Your task to perform on an android device: Show me recent news Image 0: 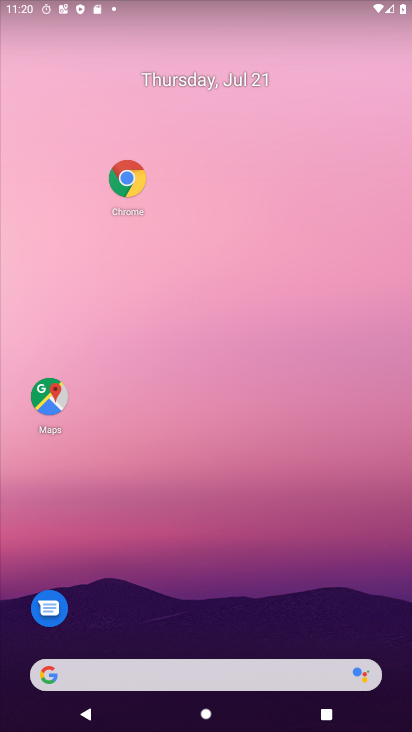
Step 0: click (207, 76)
Your task to perform on an android device: Show me recent news Image 1: 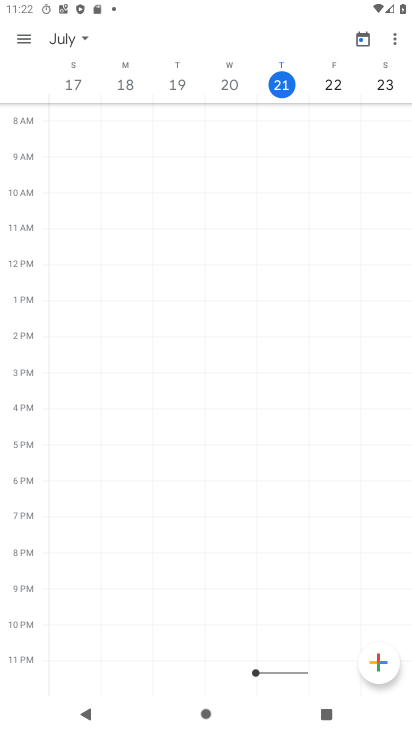
Step 1: press home button
Your task to perform on an android device: Show me recent news Image 2: 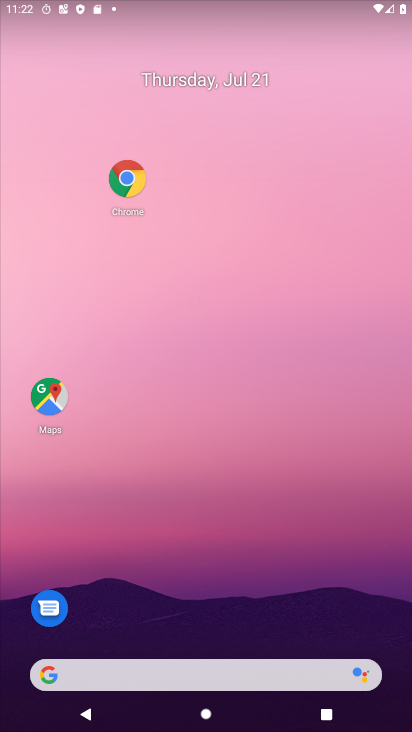
Step 2: click (133, 139)
Your task to perform on an android device: Show me recent news Image 3: 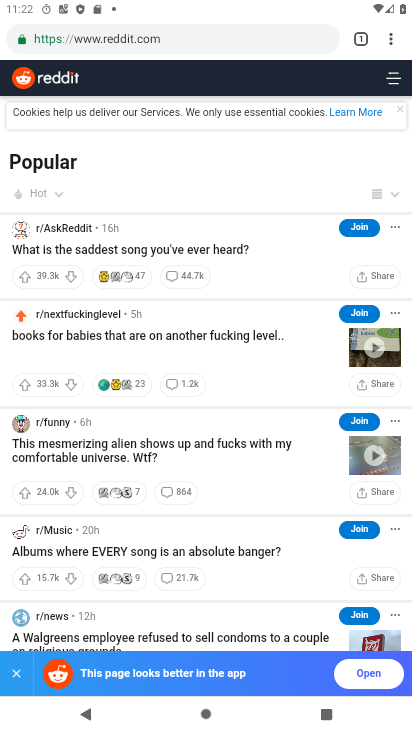
Step 3: drag from (199, 624) to (188, 124)
Your task to perform on an android device: Show me recent news Image 4: 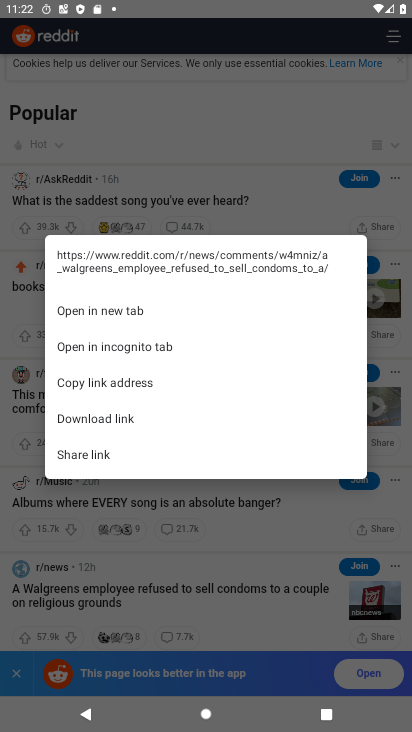
Step 4: press home button
Your task to perform on an android device: Show me recent news Image 5: 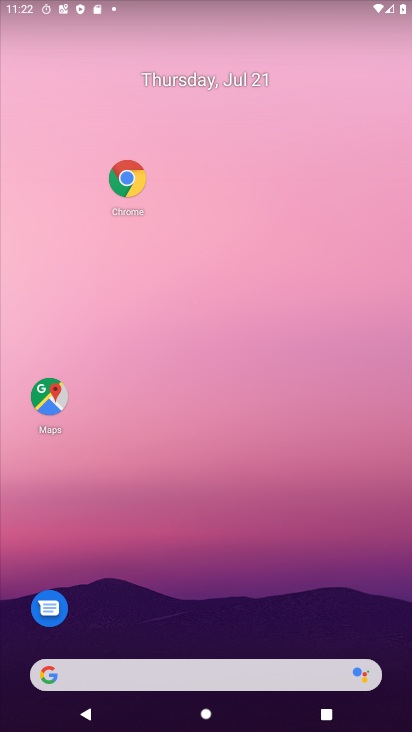
Step 5: drag from (177, 608) to (170, 296)
Your task to perform on an android device: Show me recent news Image 6: 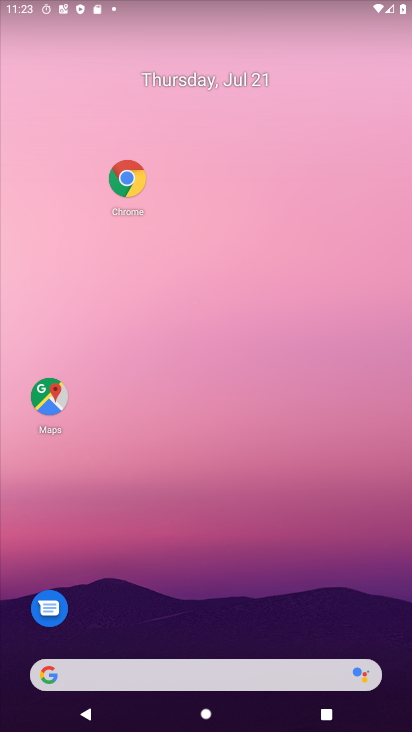
Step 6: drag from (201, 541) to (190, 177)
Your task to perform on an android device: Show me recent news Image 7: 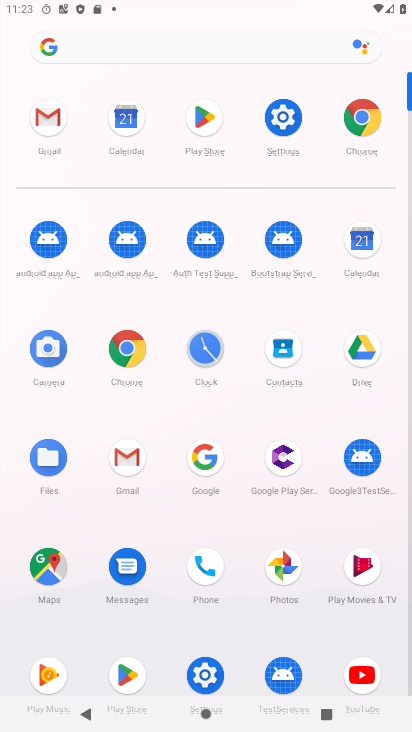
Step 7: click (208, 455)
Your task to perform on an android device: Show me recent news Image 8: 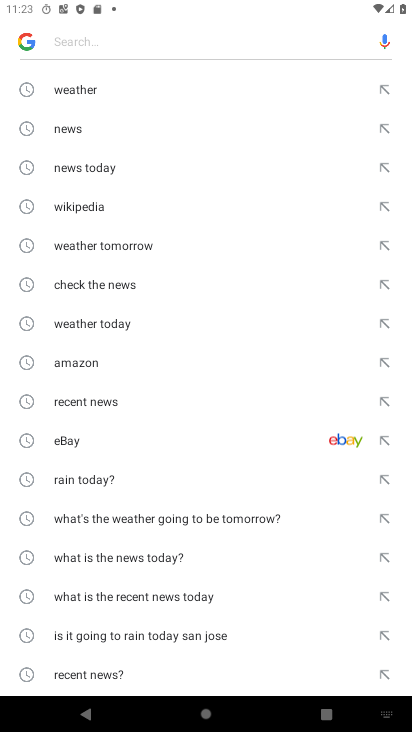
Step 8: click (87, 401)
Your task to perform on an android device: Show me recent news Image 9: 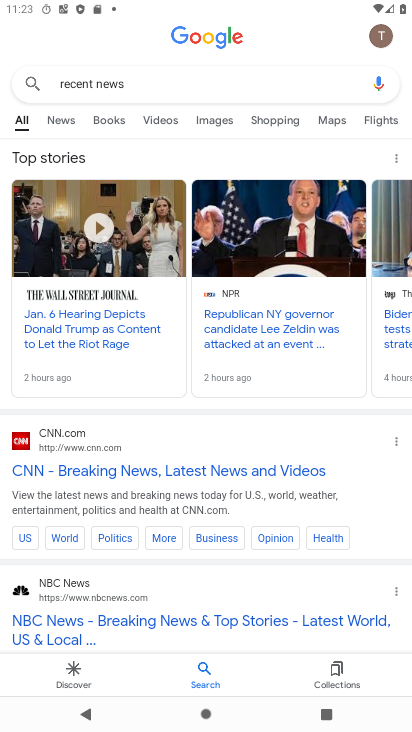
Step 9: task complete